Your task to perform on an android device: Open network settings Image 0: 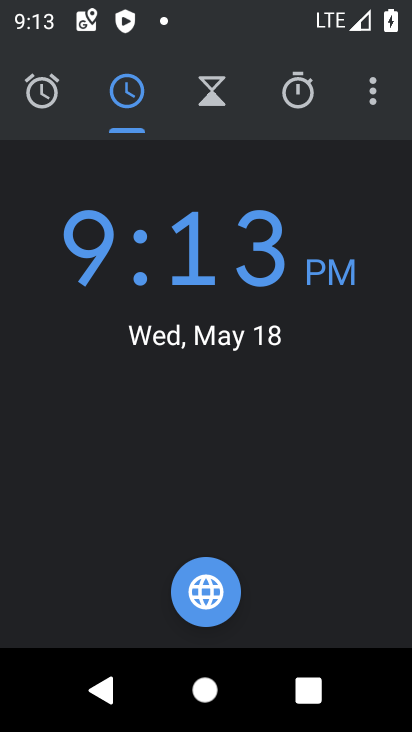
Step 0: press home button
Your task to perform on an android device: Open network settings Image 1: 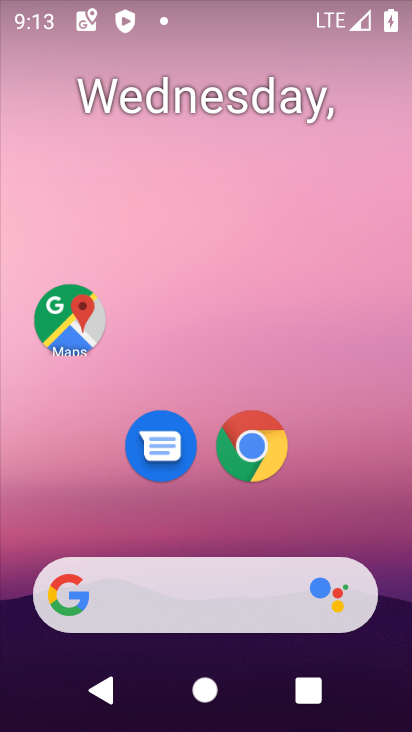
Step 1: drag from (158, 593) to (274, 141)
Your task to perform on an android device: Open network settings Image 2: 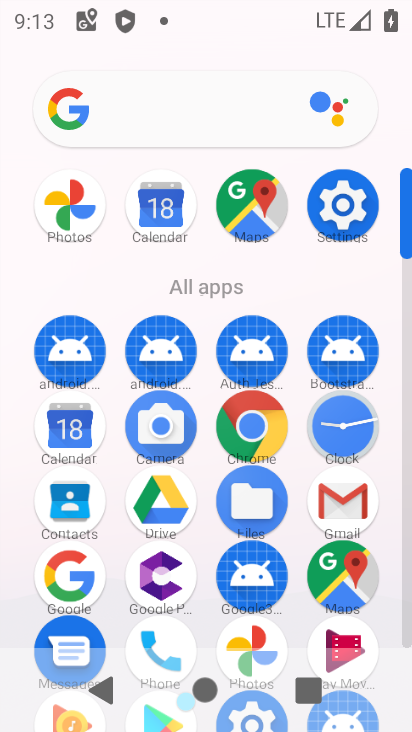
Step 2: click (333, 223)
Your task to perform on an android device: Open network settings Image 3: 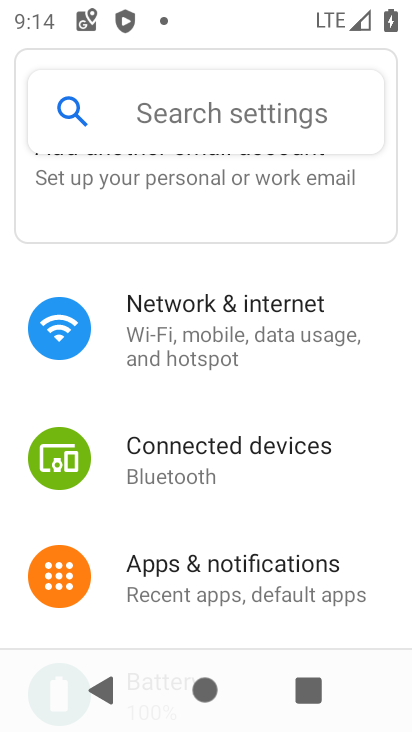
Step 3: click (269, 316)
Your task to perform on an android device: Open network settings Image 4: 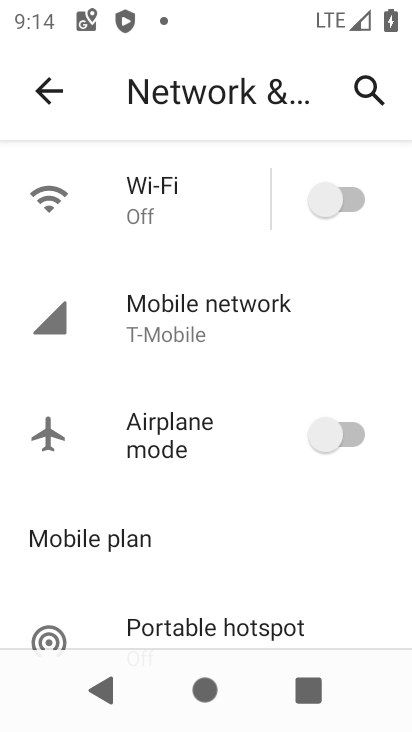
Step 4: task complete